Your task to perform on an android device: turn notification dots on Image 0: 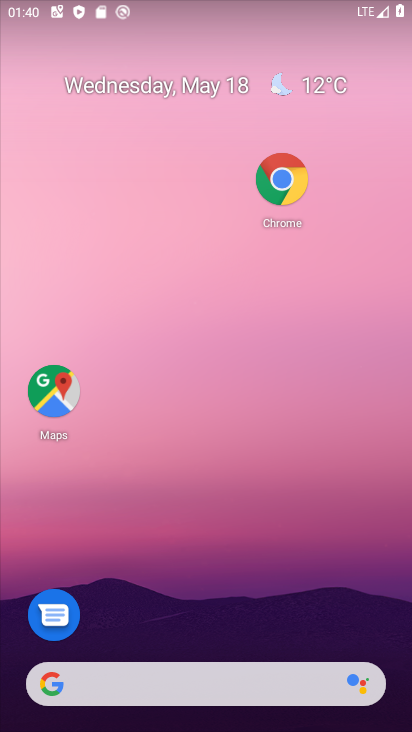
Step 0: press home button
Your task to perform on an android device: turn notification dots on Image 1: 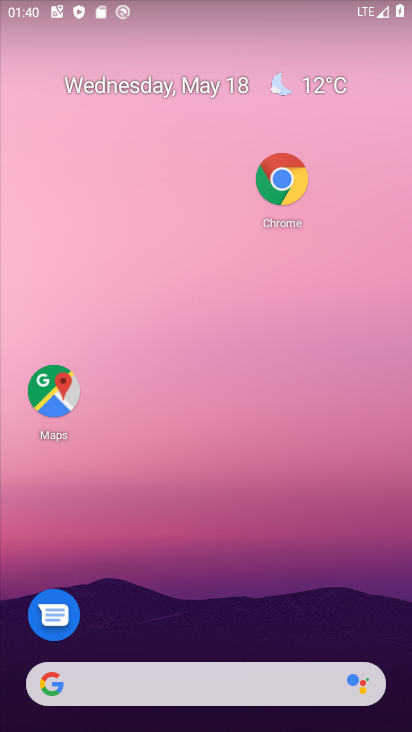
Step 1: drag from (173, 680) to (265, 133)
Your task to perform on an android device: turn notification dots on Image 2: 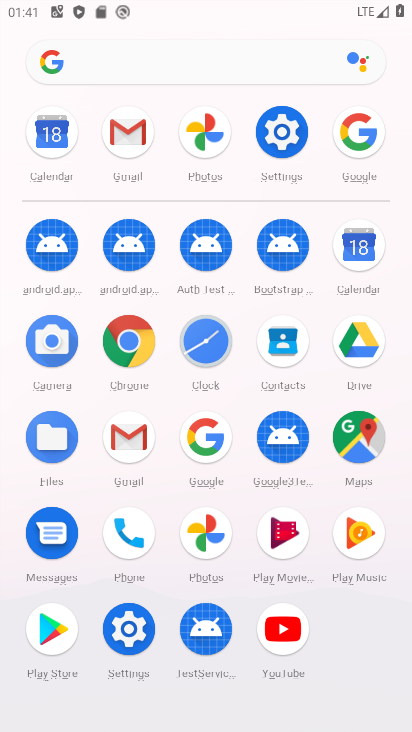
Step 2: click (298, 140)
Your task to perform on an android device: turn notification dots on Image 3: 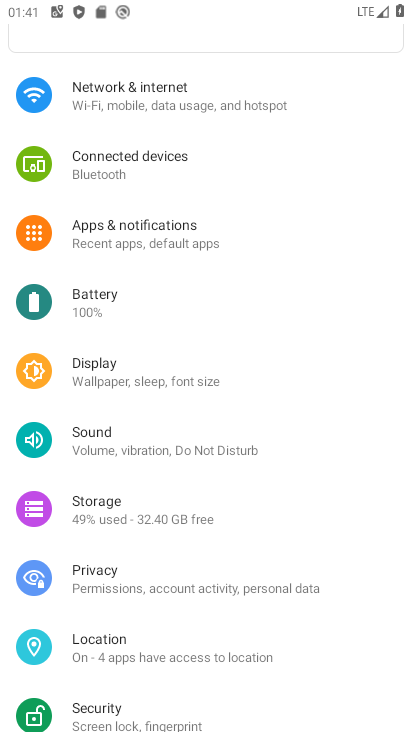
Step 3: click (174, 229)
Your task to perform on an android device: turn notification dots on Image 4: 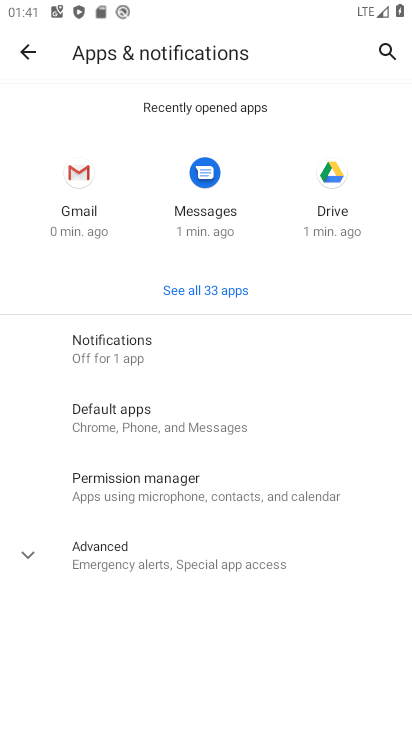
Step 4: click (131, 351)
Your task to perform on an android device: turn notification dots on Image 5: 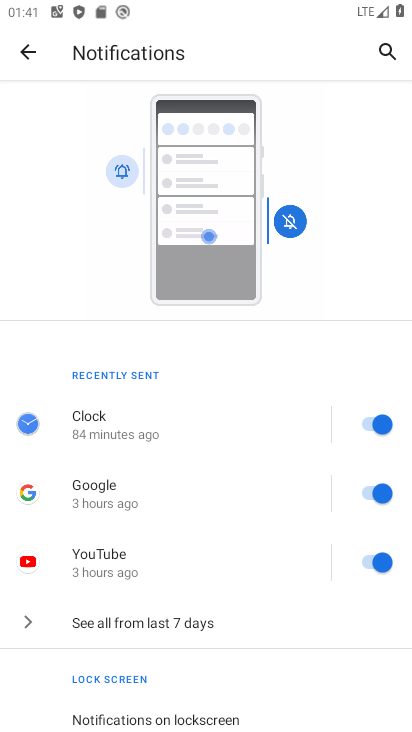
Step 5: drag from (190, 588) to (375, 93)
Your task to perform on an android device: turn notification dots on Image 6: 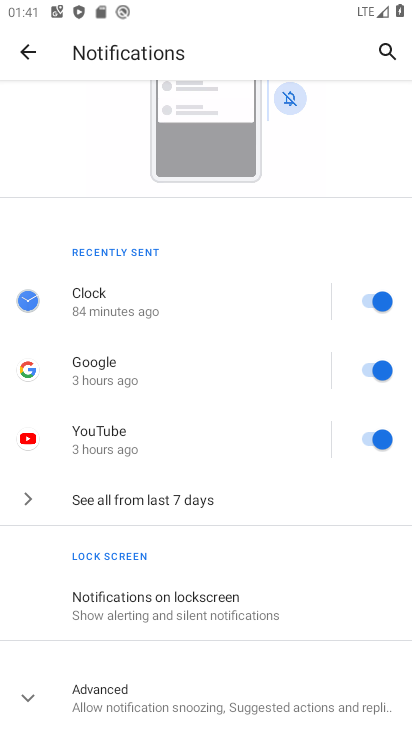
Step 6: click (140, 694)
Your task to perform on an android device: turn notification dots on Image 7: 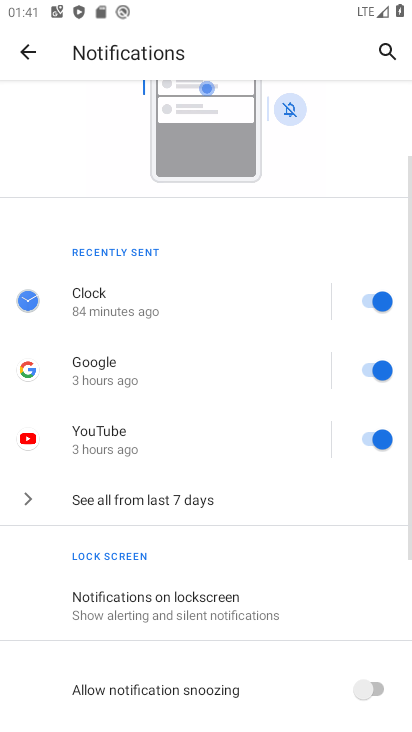
Step 7: drag from (225, 647) to (383, 119)
Your task to perform on an android device: turn notification dots on Image 8: 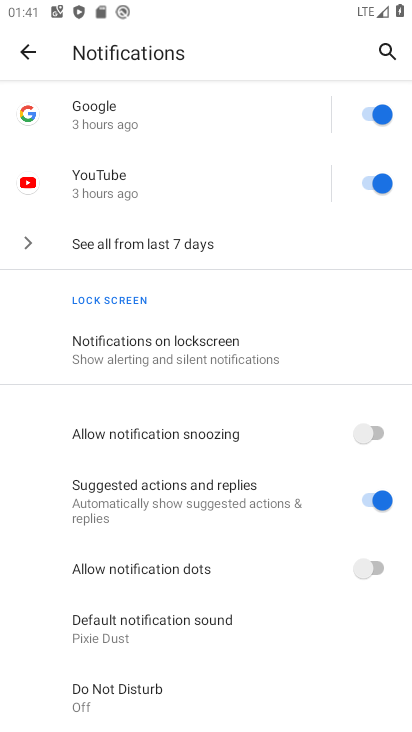
Step 8: click (377, 564)
Your task to perform on an android device: turn notification dots on Image 9: 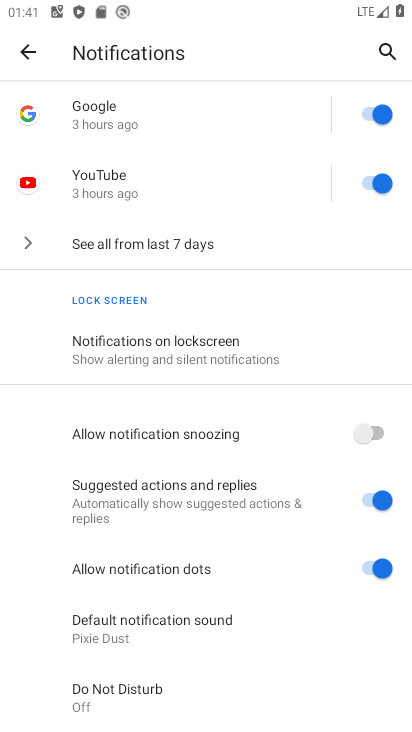
Step 9: task complete